Your task to perform on an android device: open chrome and create a bookmark for the current page Image 0: 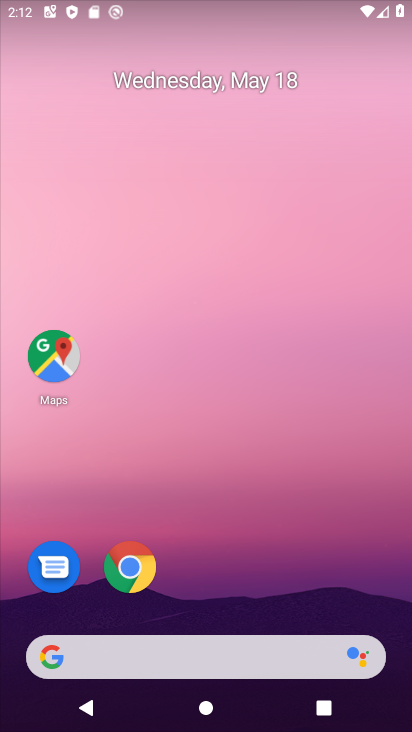
Step 0: drag from (299, 478) to (285, 162)
Your task to perform on an android device: open chrome and create a bookmark for the current page Image 1: 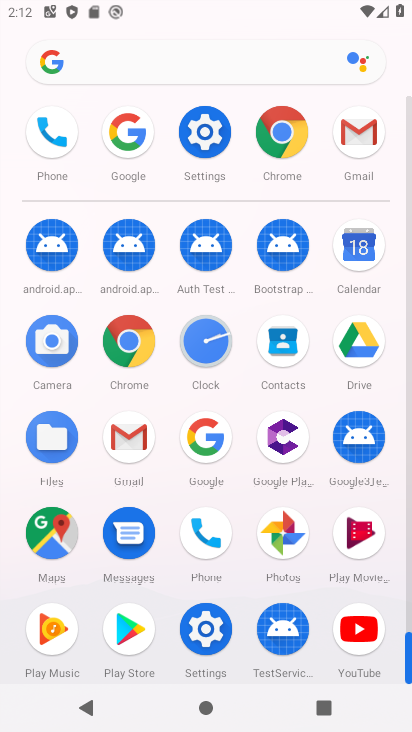
Step 1: click (281, 133)
Your task to perform on an android device: open chrome and create a bookmark for the current page Image 2: 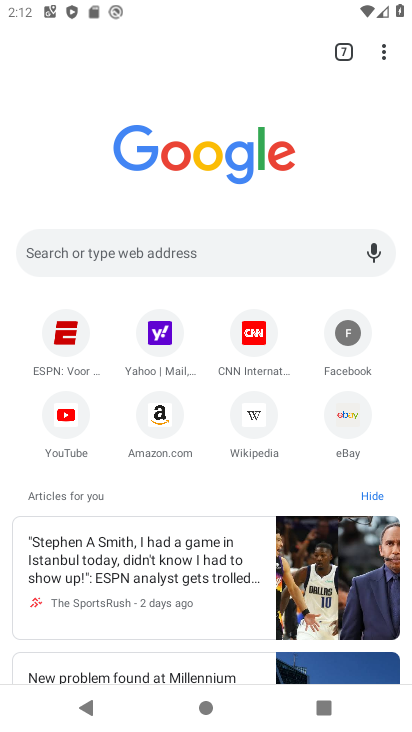
Step 2: click (365, 57)
Your task to perform on an android device: open chrome and create a bookmark for the current page Image 3: 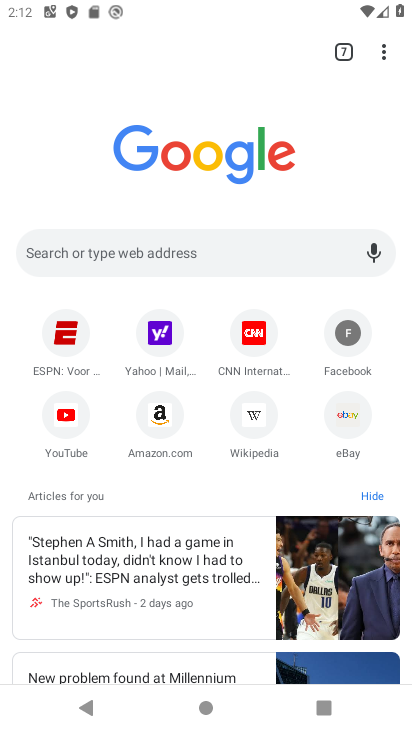
Step 3: click (359, 57)
Your task to perform on an android device: open chrome and create a bookmark for the current page Image 4: 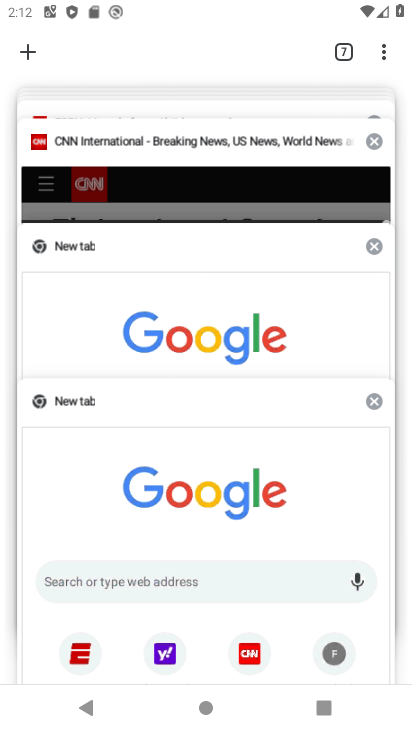
Step 4: click (219, 137)
Your task to perform on an android device: open chrome and create a bookmark for the current page Image 5: 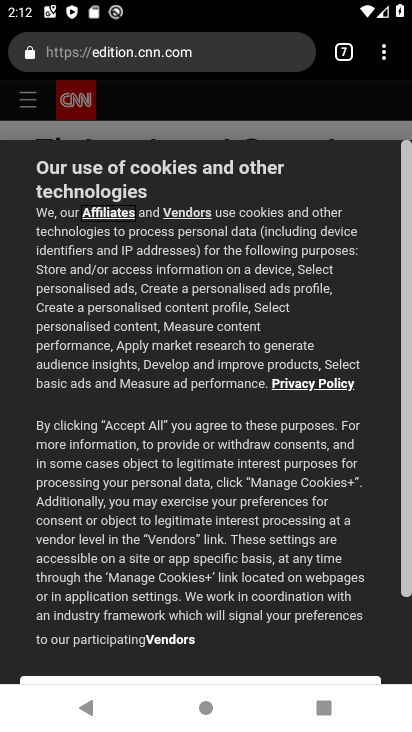
Step 5: click (368, 54)
Your task to perform on an android device: open chrome and create a bookmark for the current page Image 6: 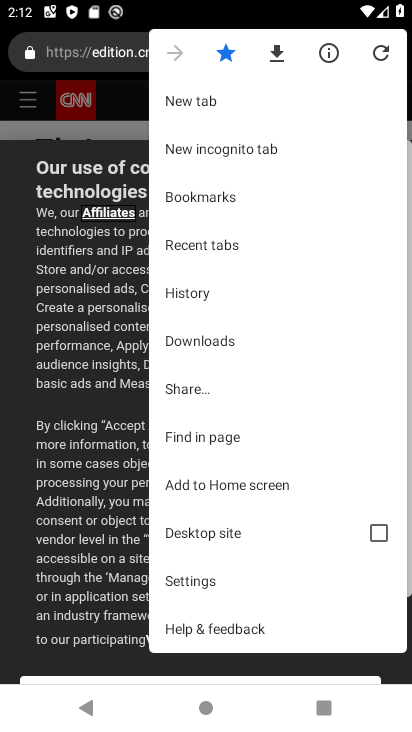
Step 6: click (215, 45)
Your task to perform on an android device: open chrome and create a bookmark for the current page Image 7: 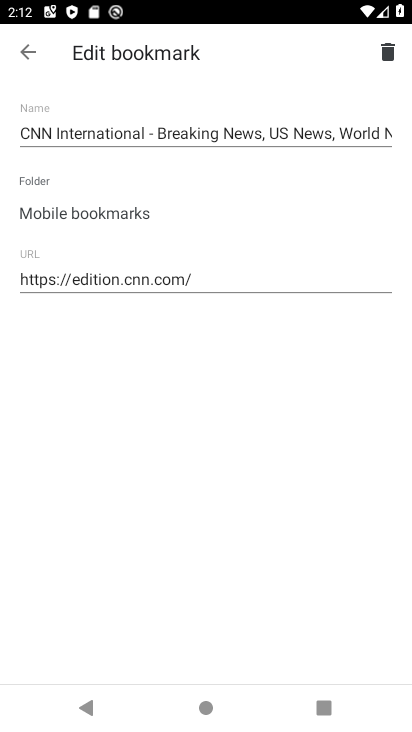
Step 7: click (12, 49)
Your task to perform on an android device: open chrome and create a bookmark for the current page Image 8: 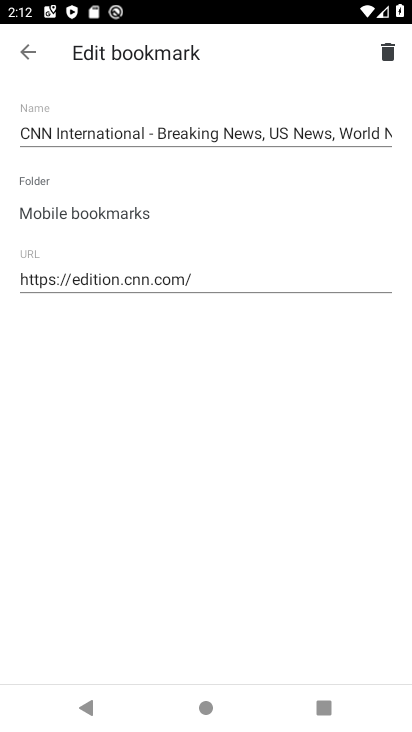
Step 8: task complete